Your task to perform on an android device: clear history in the chrome app Image 0: 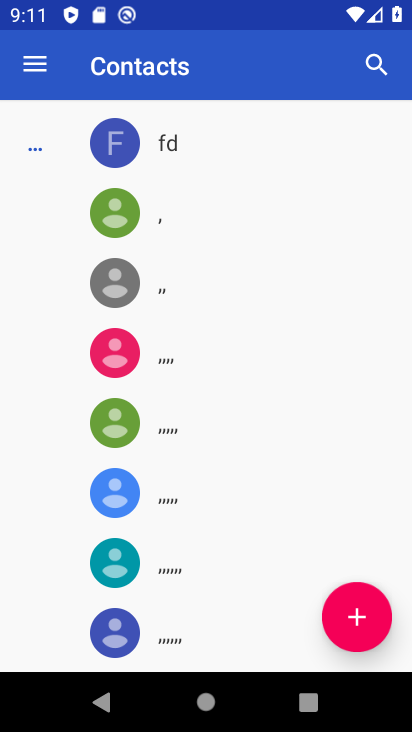
Step 0: press home button
Your task to perform on an android device: clear history in the chrome app Image 1: 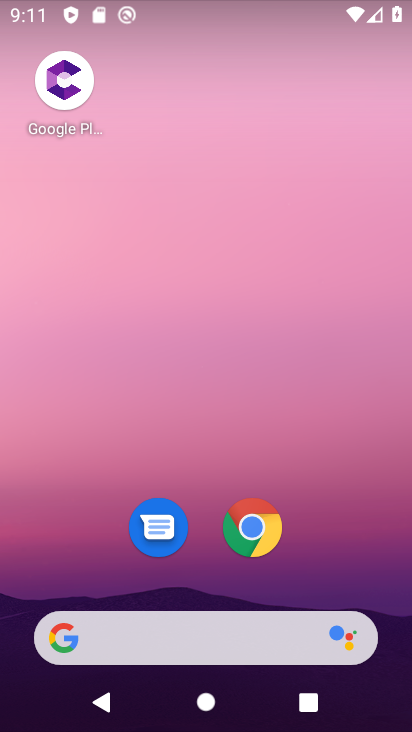
Step 1: click (259, 525)
Your task to perform on an android device: clear history in the chrome app Image 2: 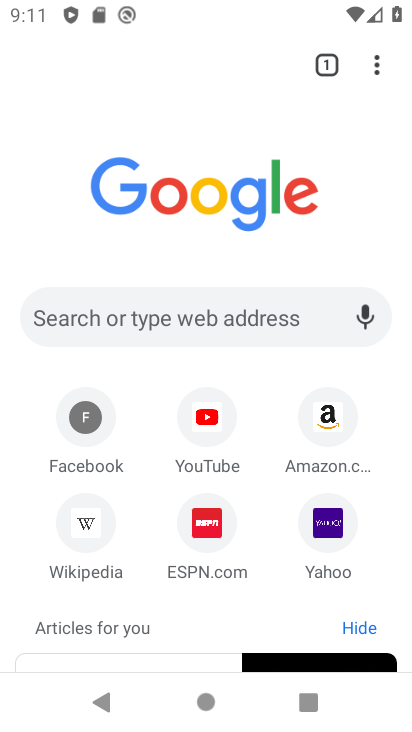
Step 2: click (375, 61)
Your task to perform on an android device: clear history in the chrome app Image 3: 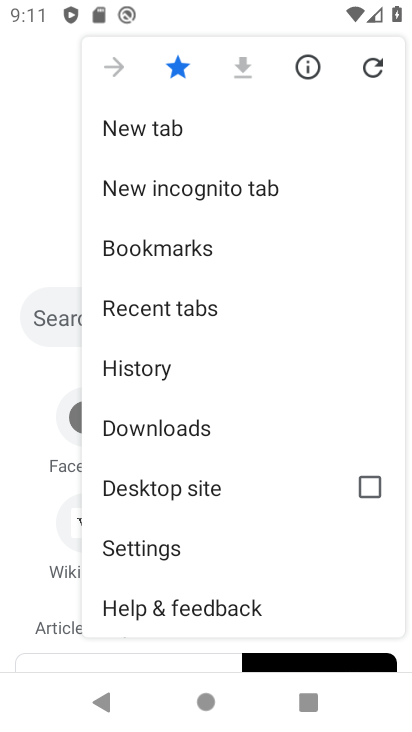
Step 3: click (131, 363)
Your task to perform on an android device: clear history in the chrome app Image 4: 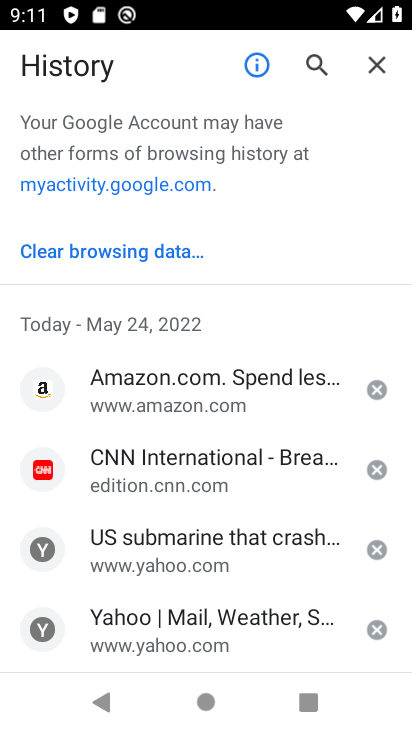
Step 4: click (165, 251)
Your task to perform on an android device: clear history in the chrome app Image 5: 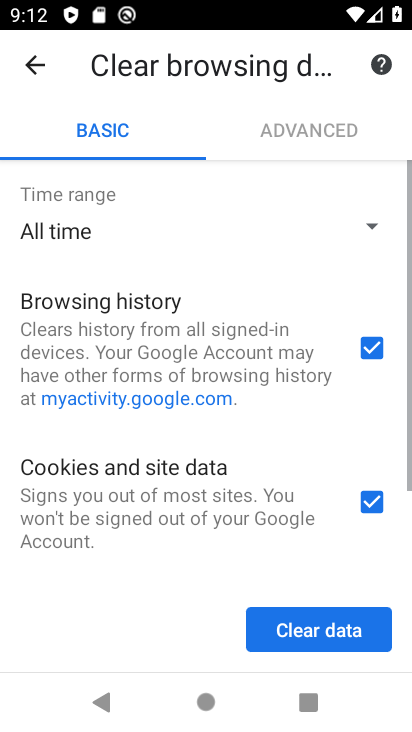
Step 5: click (307, 621)
Your task to perform on an android device: clear history in the chrome app Image 6: 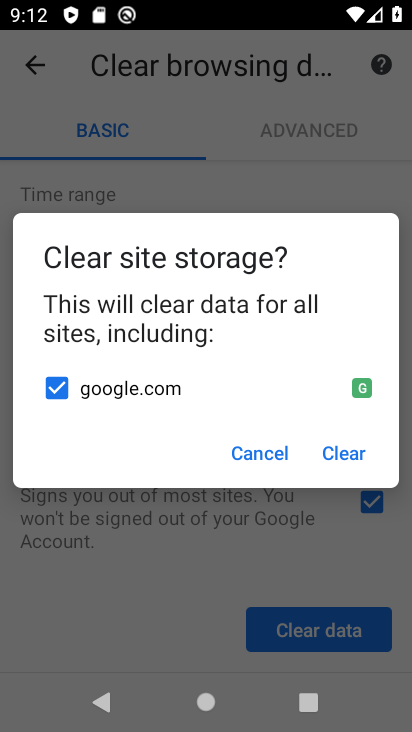
Step 6: click (351, 446)
Your task to perform on an android device: clear history in the chrome app Image 7: 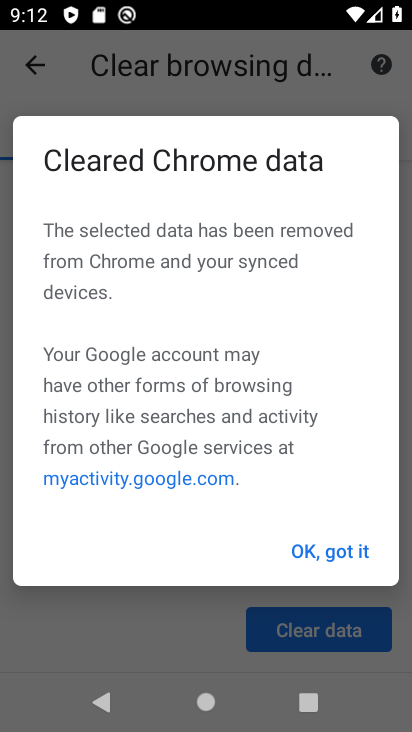
Step 7: click (338, 550)
Your task to perform on an android device: clear history in the chrome app Image 8: 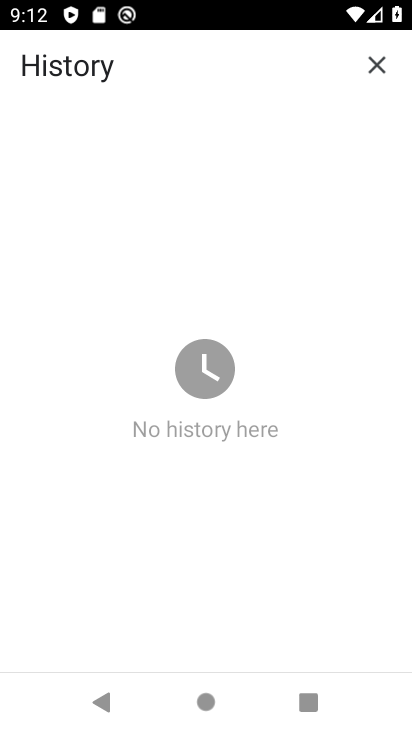
Step 8: task complete